Your task to perform on an android device: Search for pizza restaurants on Maps Image 0: 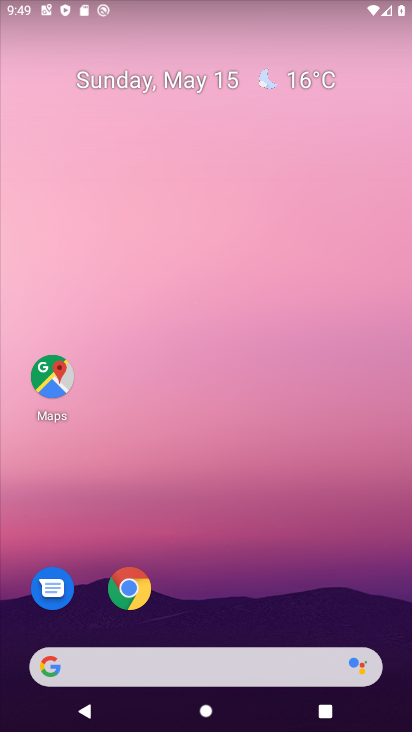
Step 0: click (50, 372)
Your task to perform on an android device: Search for pizza restaurants on Maps Image 1: 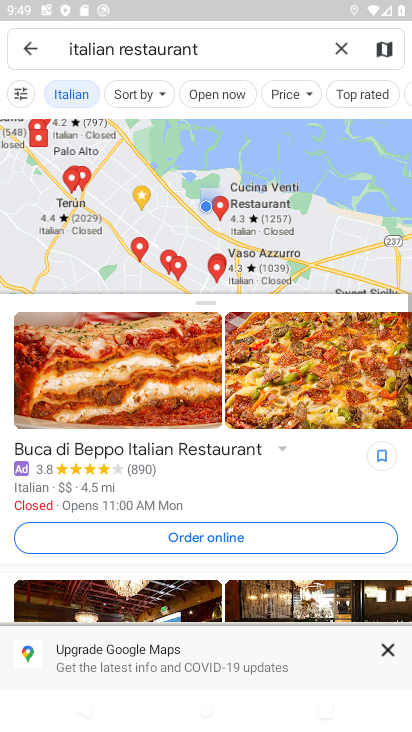
Step 1: click (339, 44)
Your task to perform on an android device: Search for pizza restaurants on Maps Image 2: 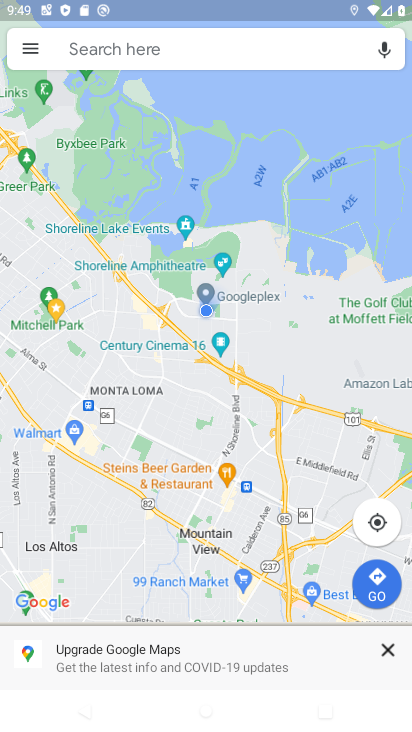
Step 2: type "pizza"
Your task to perform on an android device: Search for pizza restaurants on Maps Image 3: 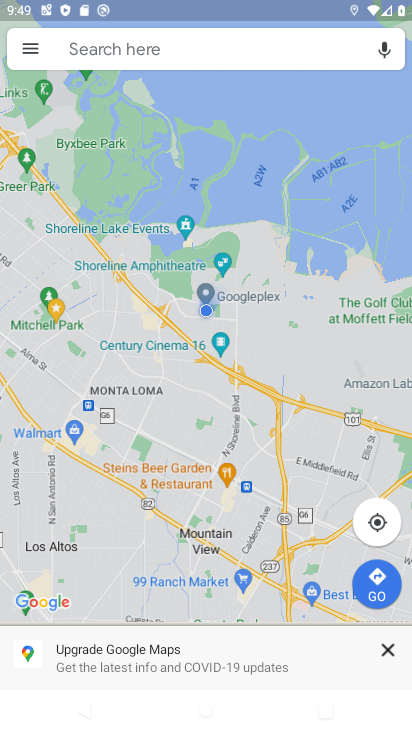
Step 3: click (187, 55)
Your task to perform on an android device: Search for pizza restaurants on Maps Image 4: 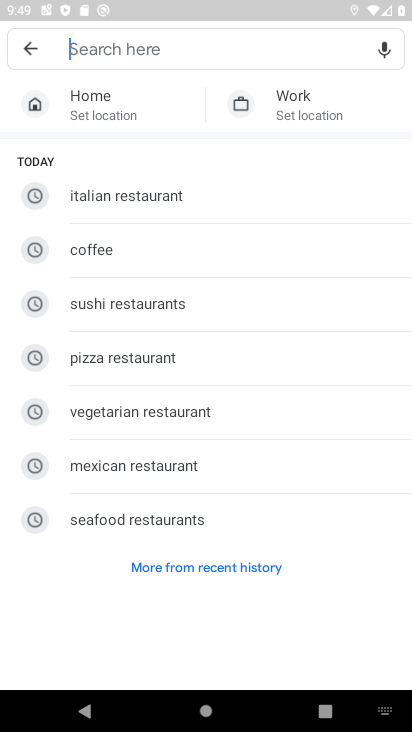
Step 4: click (164, 355)
Your task to perform on an android device: Search for pizza restaurants on Maps Image 5: 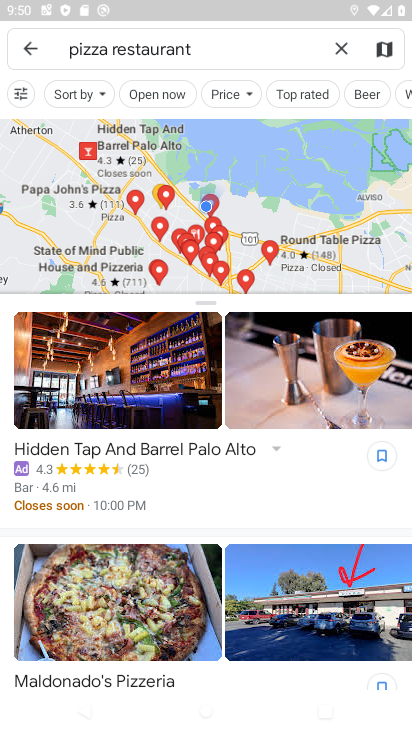
Step 5: task complete